Your task to perform on an android device: see creations saved in the google photos Image 0: 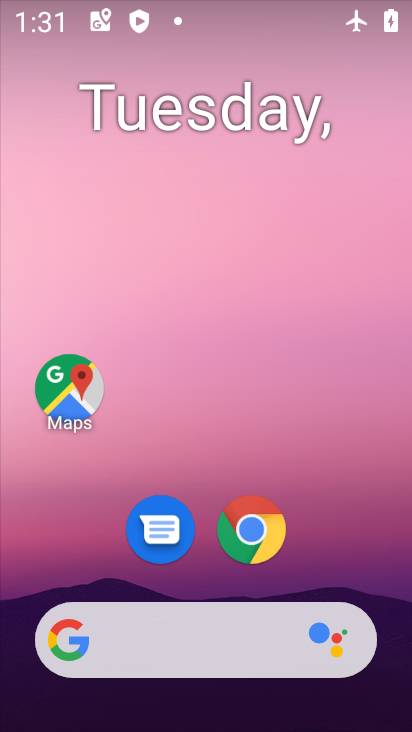
Step 0: drag from (373, 550) to (332, 5)
Your task to perform on an android device: see creations saved in the google photos Image 1: 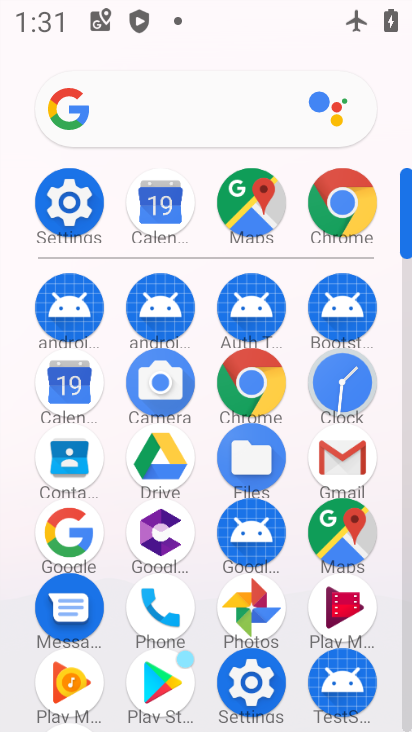
Step 1: click (261, 602)
Your task to perform on an android device: see creations saved in the google photos Image 2: 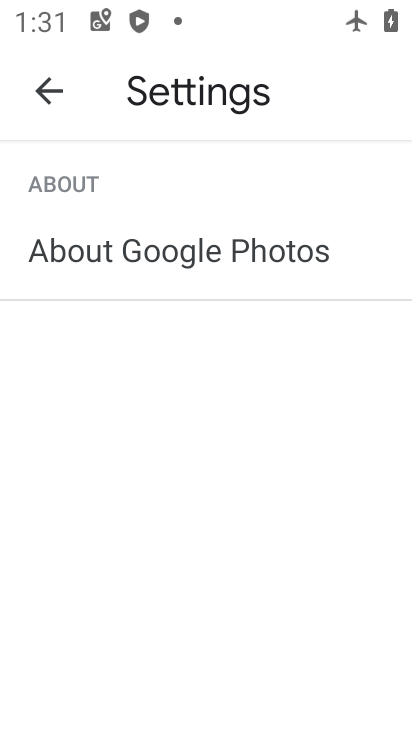
Step 2: click (48, 80)
Your task to perform on an android device: see creations saved in the google photos Image 3: 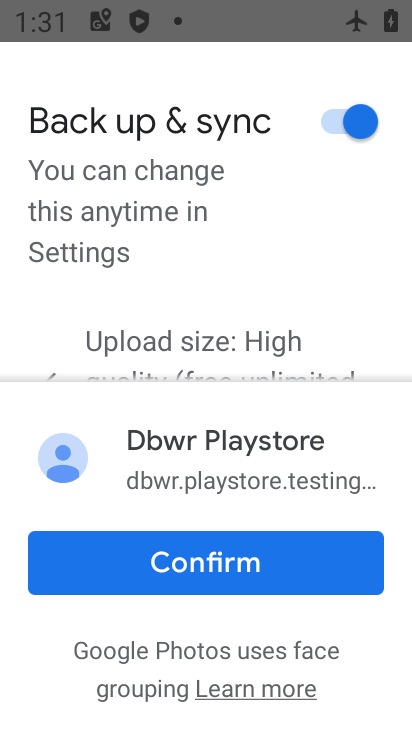
Step 3: click (256, 550)
Your task to perform on an android device: see creations saved in the google photos Image 4: 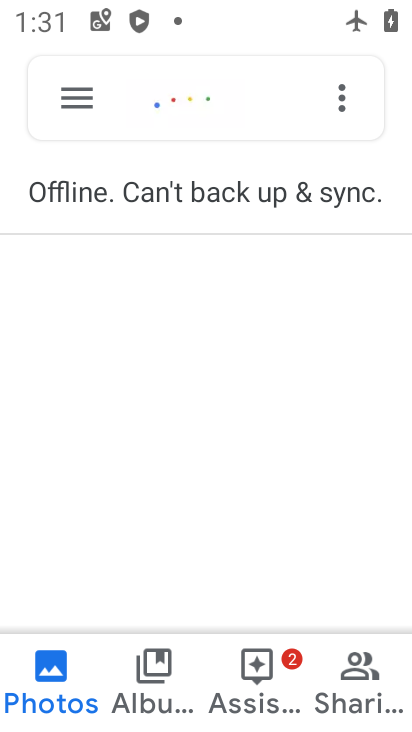
Step 4: click (268, 667)
Your task to perform on an android device: see creations saved in the google photos Image 5: 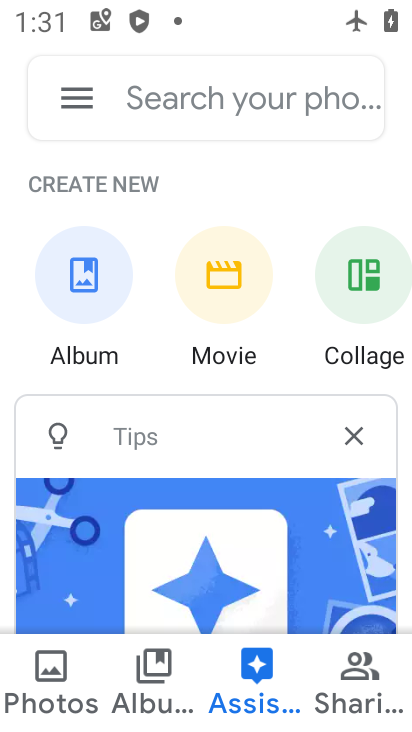
Step 5: click (225, 85)
Your task to perform on an android device: see creations saved in the google photos Image 6: 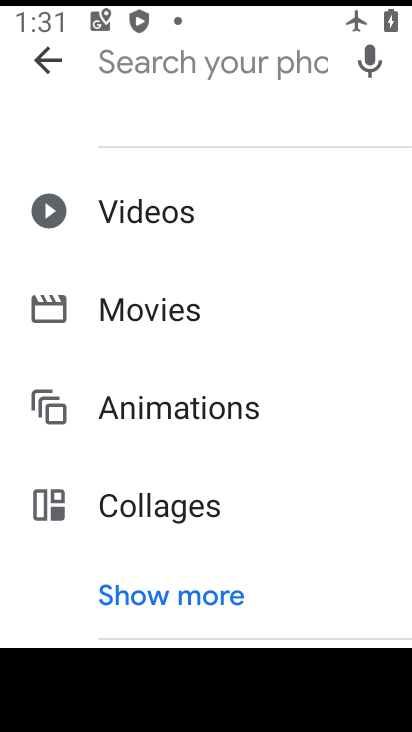
Step 6: click (214, 595)
Your task to perform on an android device: see creations saved in the google photos Image 7: 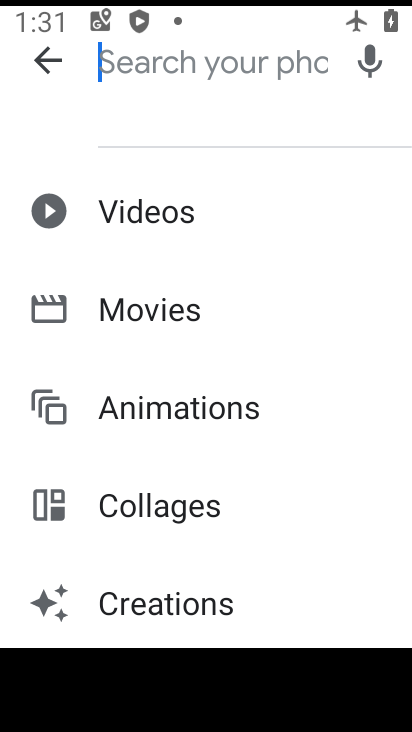
Step 7: click (232, 605)
Your task to perform on an android device: see creations saved in the google photos Image 8: 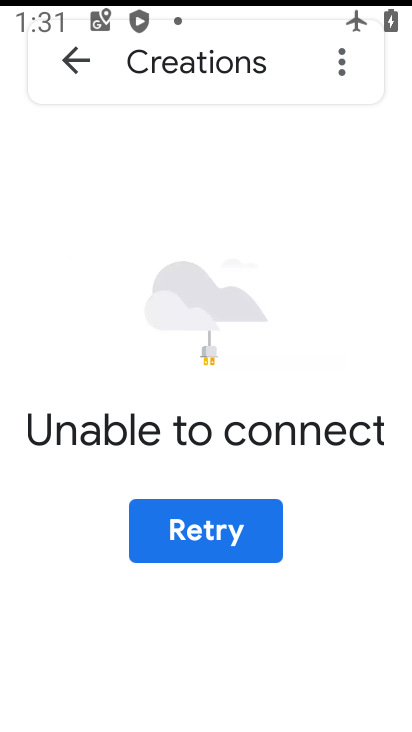
Step 8: task complete